Your task to perform on an android device: toggle sleep mode Image 0: 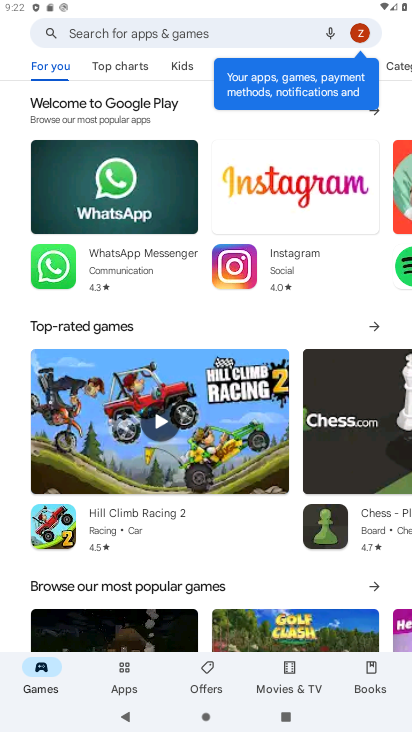
Step 0: press home button
Your task to perform on an android device: toggle sleep mode Image 1: 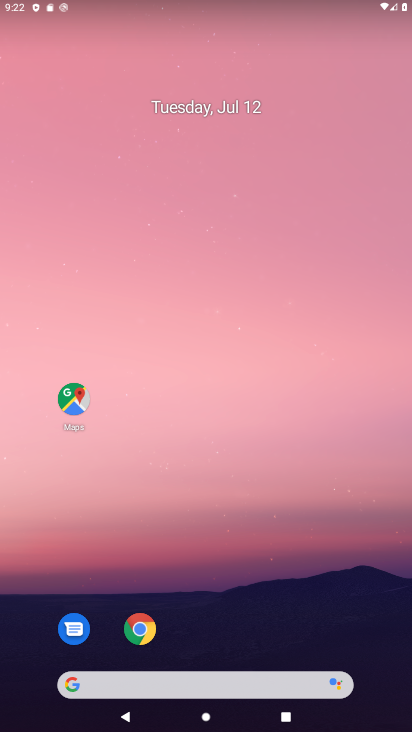
Step 1: drag from (281, 581) to (227, 8)
Your task to perform on an android device: toggle sleep mode Image 2: 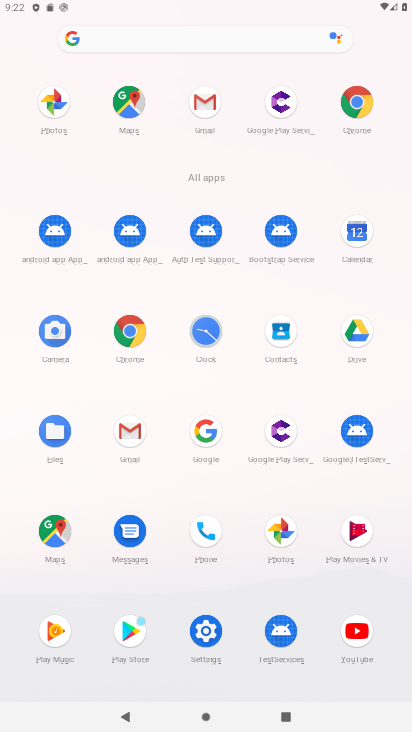
Step 2: click (206, 624)
Your task to perform on an android device: toggle sleep mode Image 3: 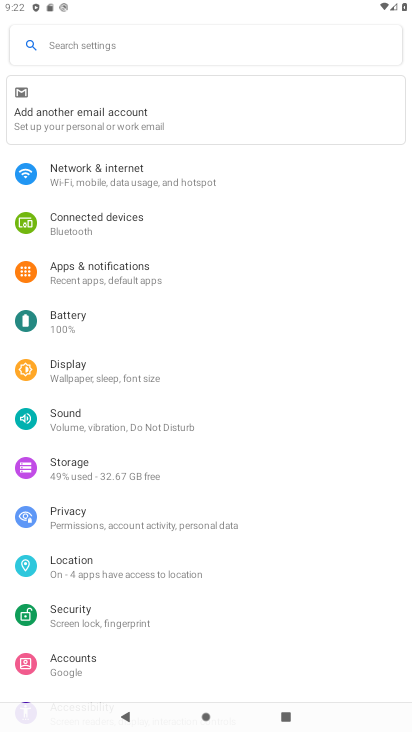
Step 3: click (86, 368)
Your task to perform on an android device: toggle sleep mode Image 4: 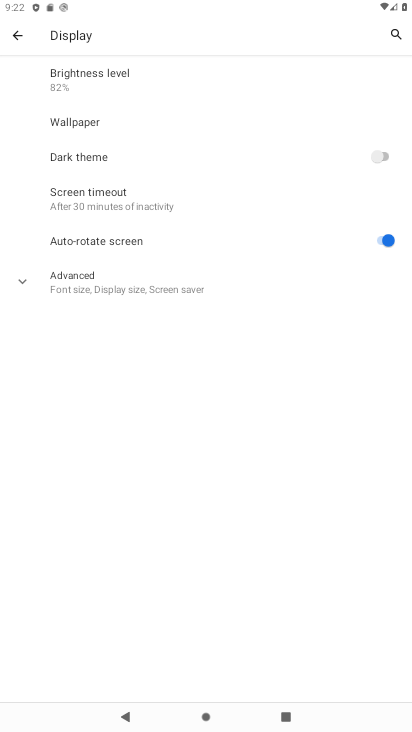
Step 4: click (77, 196)
Your task to perform on an android device: toggle sleep mode Image 5: 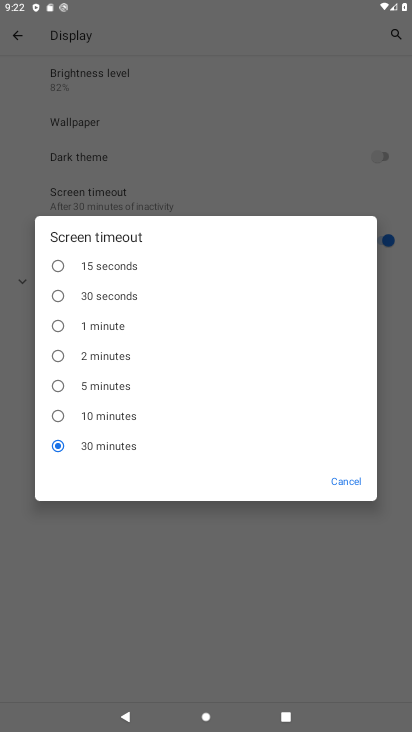
Step 5: click (109, 418)
Your task to perform on an android device: toggle sleep mode Image 6: 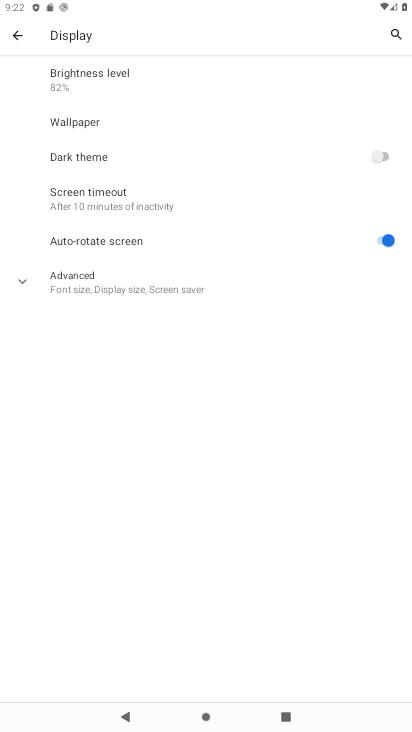
Step 6: task complete